Your task to perform on an android device: Show me recent news Image 0: 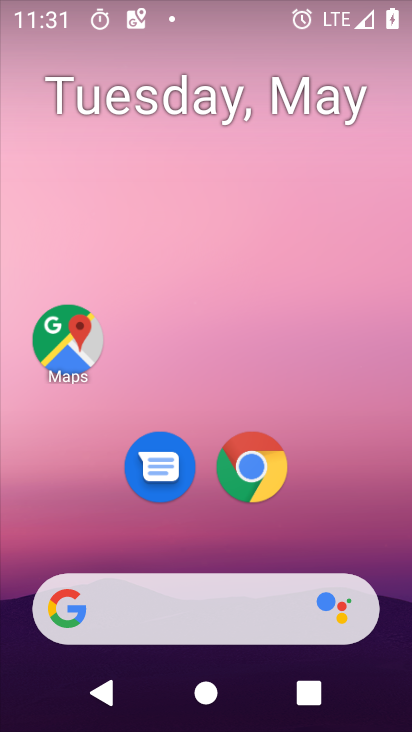
Step 0: drag from (357, 482) to (259, 36)
Your task to perform on an android device: Show me recent news Image 1: 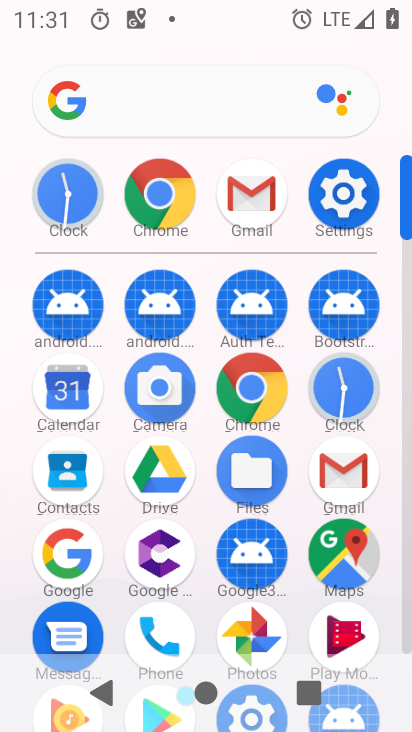
Step 1: drag from (17, 496) to (20, 251)
Your task to perform on an android device: Show me recent news Image 2: 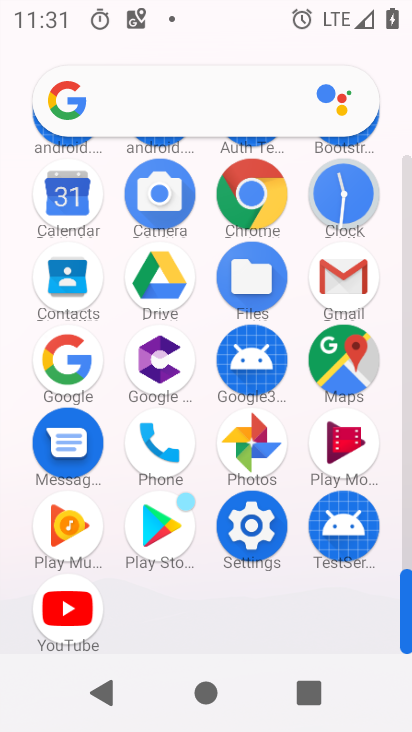
Step 2: click (253, 189)
Your task to perform on an android device: Show me recent news Image 3: 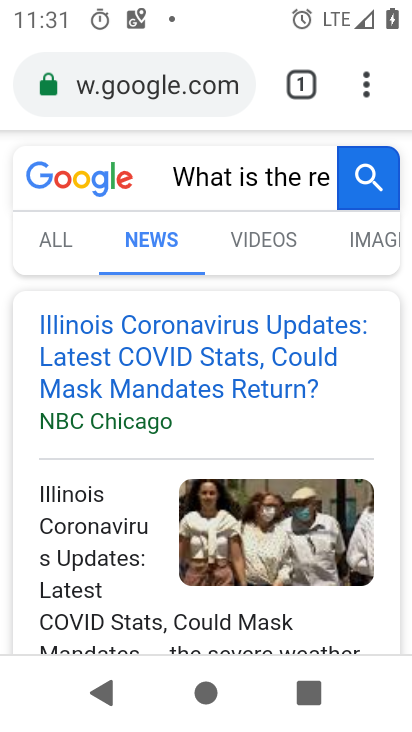
Step 3: click (178, 85)
Your task to perform on an android device: Show me recent news Image 4: 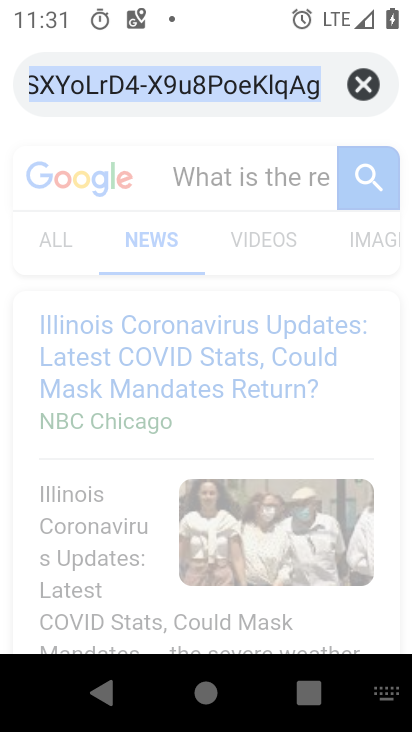
Step 4: click (352, 82)
Your task to perform on an android device: Show me recent news Image 5: 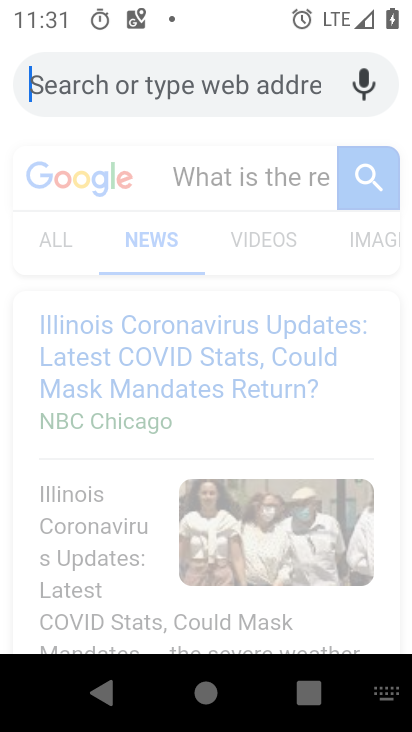
Step 5: type "Show me recent news"
Your task to perform on an android device: Show me recent news Image 6: 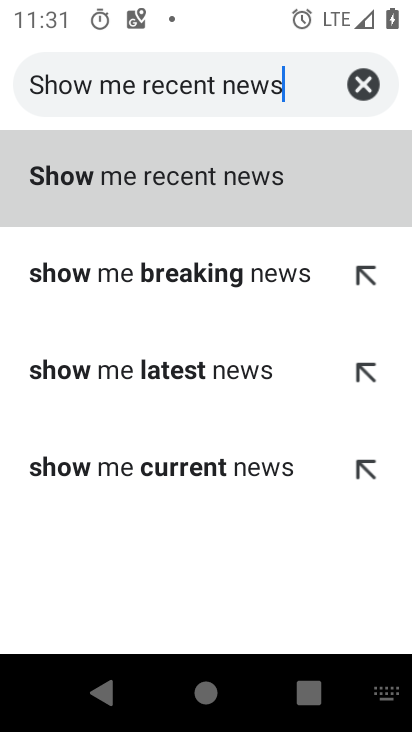
Step 6: click (165, 185)
Your task to perform on an android device: Show me recent news Image 7: 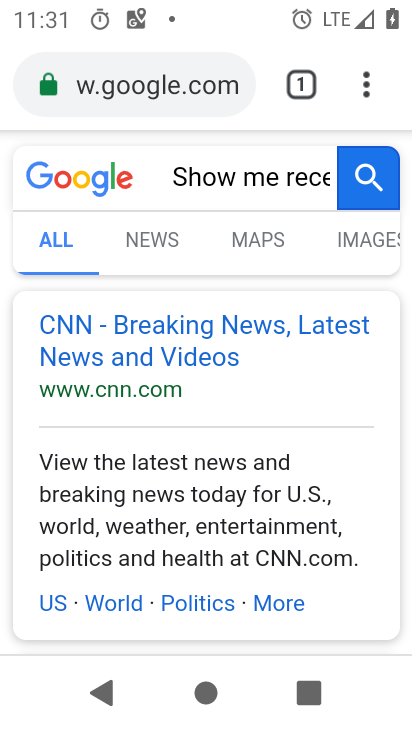
Step 7: click (144, 234)
Your task to perform on an android device: Show me recent news Image 8: 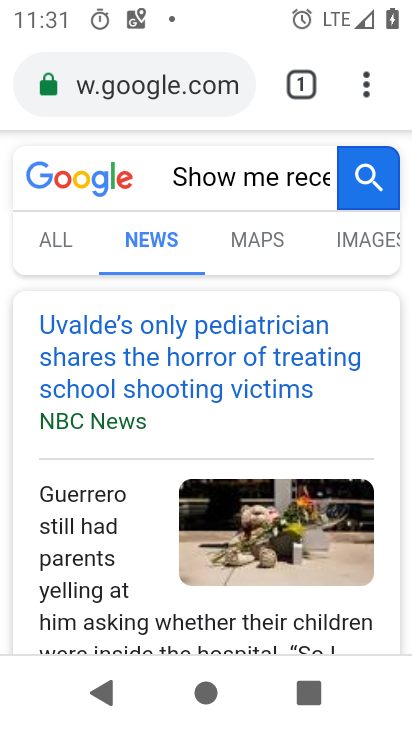
Step 8: task complete